Your task to perform on an android device: turn off airplane mode Image 0: 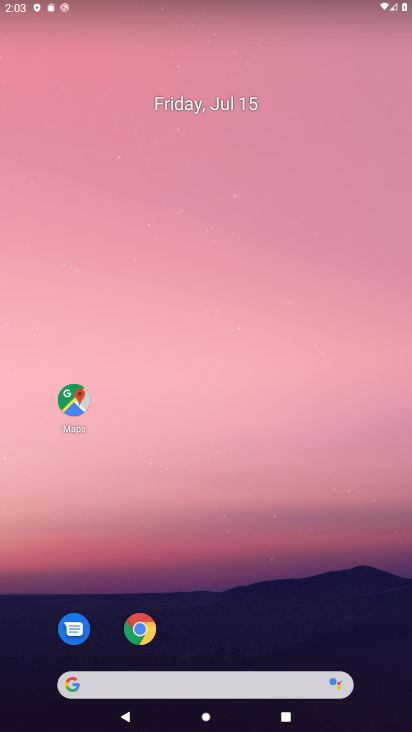
Step 0: drag from (357, 635) to (367, 4)
Your task to perform on an android device: turn off airplane mode Image 1: 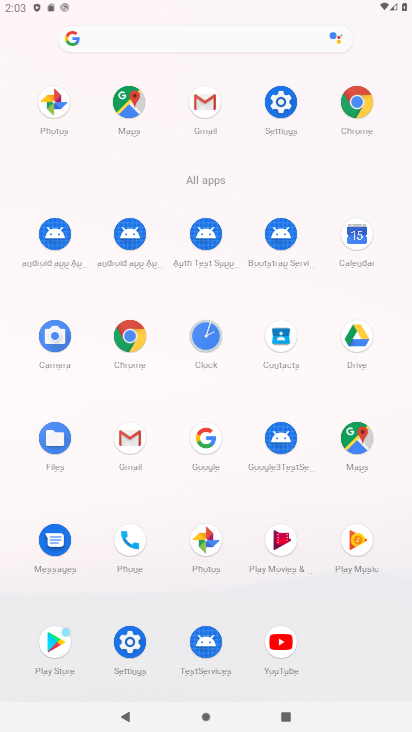
Step 1: click (279, 130)
Your task to perform on an android device: turn off airplane mode Image 2: 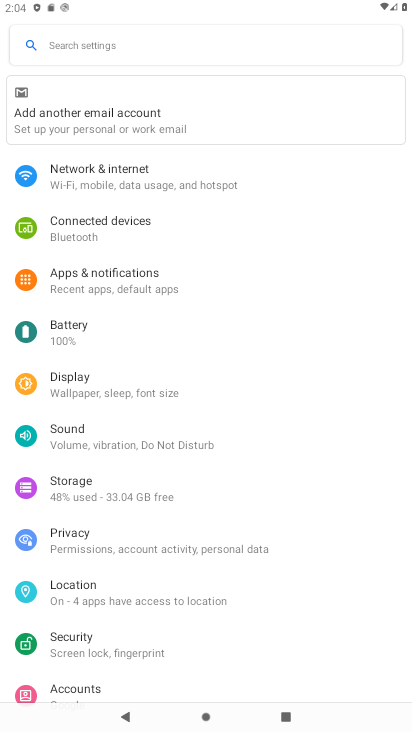
Step 2: click (239, 187)
Your task to perform on an android device: turn off airplane mode Image 3: 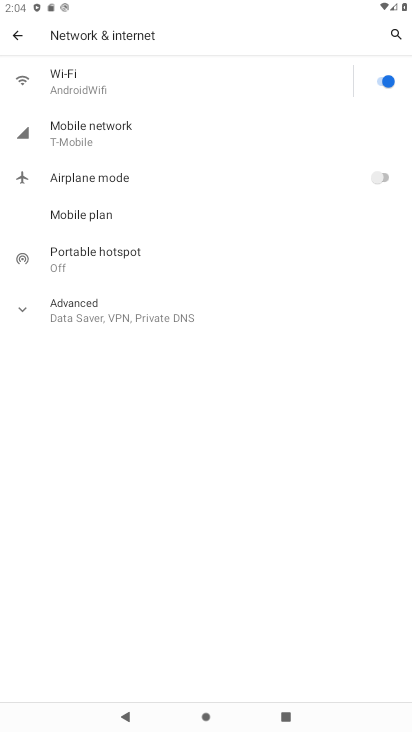
Step 3: task complete